Your task to perform on an android device: Open notification settings Image 0: 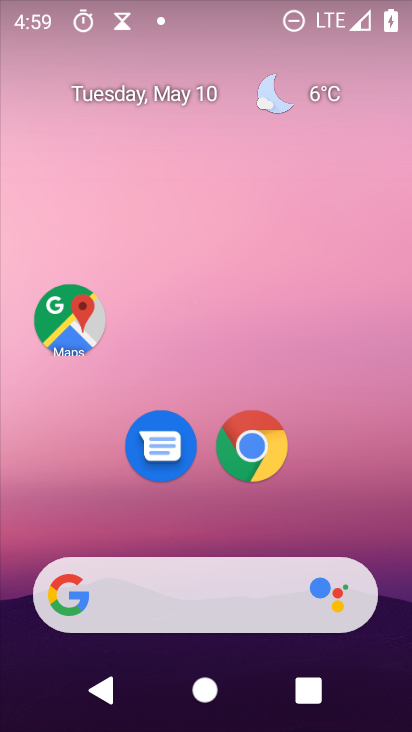
Step 0: drag from (282, 472) to (199, 85)
Your task to perform on an android device: Open notification settings Image 1: 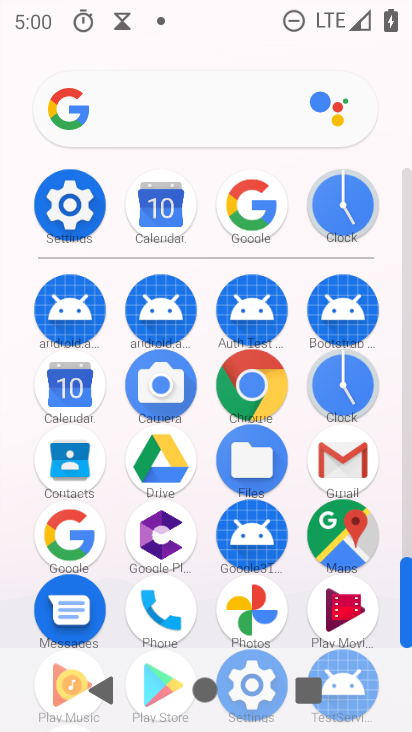
Step 1: click (70, 204)
Your task to perform on an android device: Open notification settings Image 2: 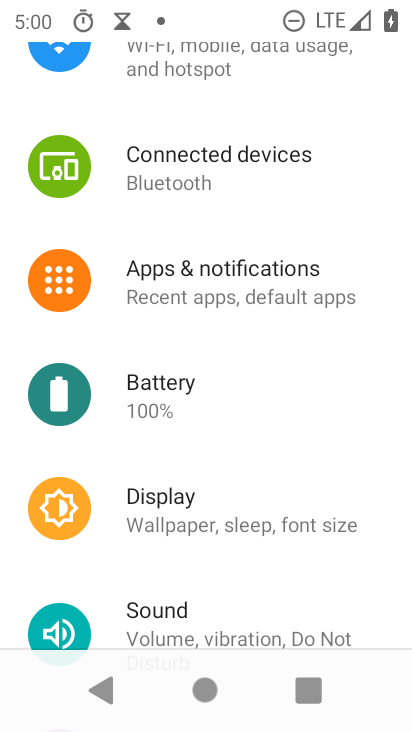
Step 2: click (240, 280)
Your task to perform on an android device: Open notification settings Image 3: 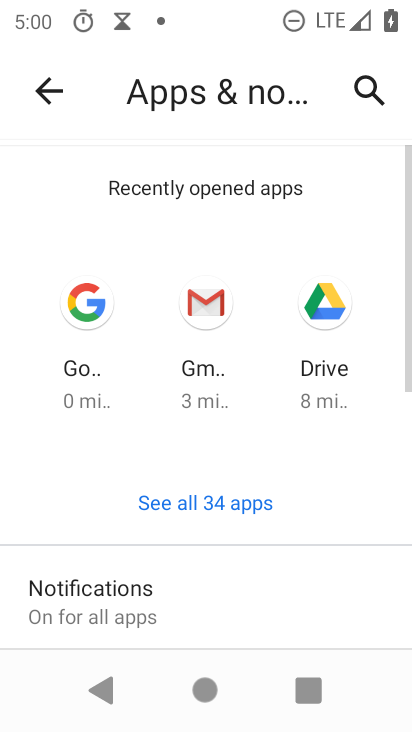
Step 3: task complete